Your task to perform on an android device: empty trash in the gmail app Image 0: 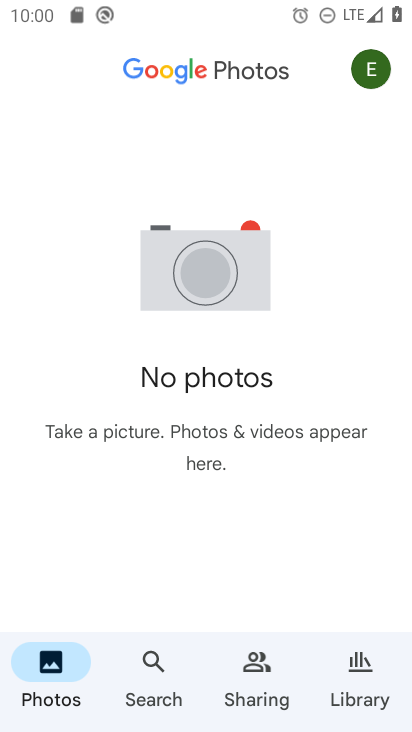
Step 0: press home button
Your task to perform on an android device: empty trash in the gmail app Image 1: 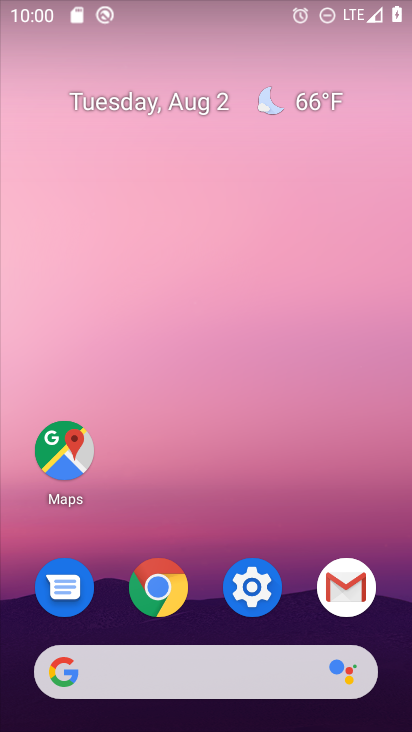
Step 1: click (342, 597)
Your task to perform on an android device: empty trash in the gmail app Image 2: 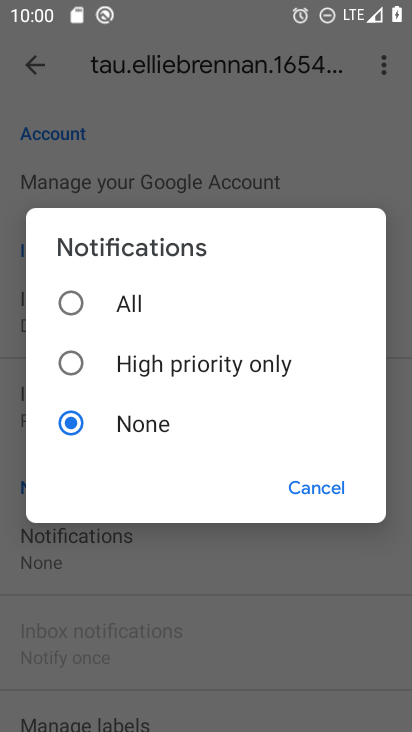
Step 2: click (301, 490)
Your task to perform on an android device: empty trash in the gmail app Image 3: 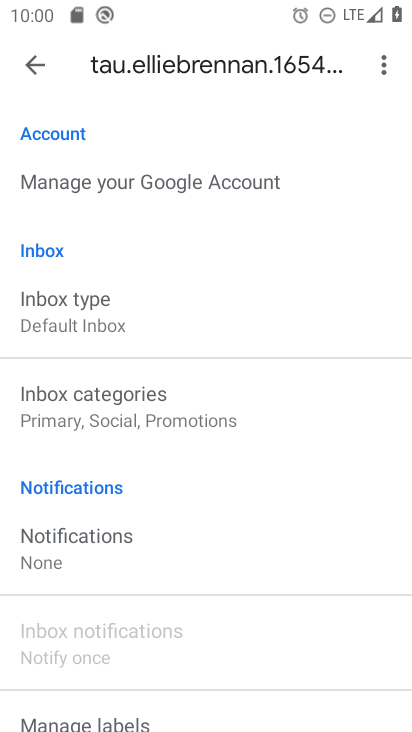
Step 3: click (45, 64)
Your task to perform on an android device: empty trash in the gmail app Image 4: 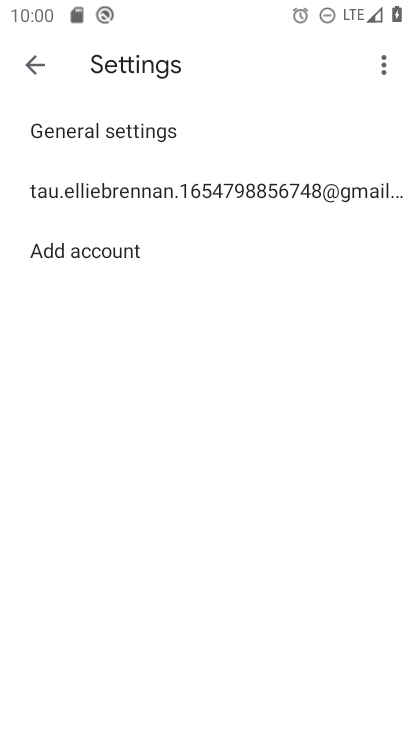
Step 4: click (45, 64)
Your task to perform on an android device: empty trash in the gmail app Image 5: 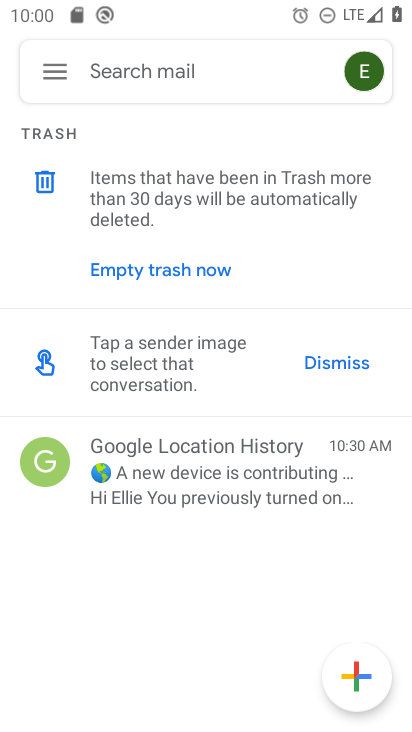
Step 5: click (45, 64)
Your task to perform on an android device: empty trash in the gmail app Image 6: 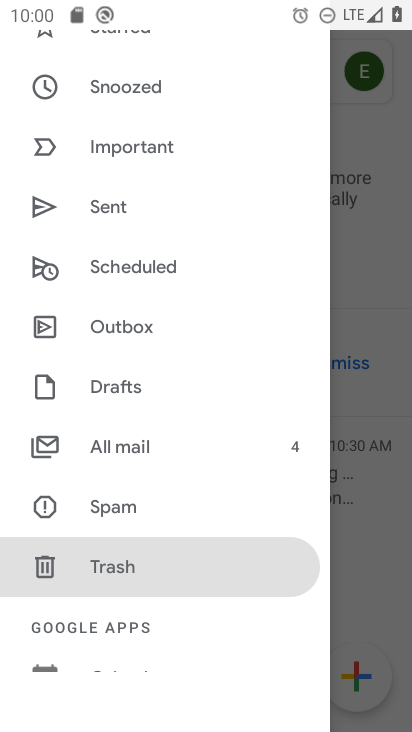
Step 6: click (151, 567)
Your task to perform on an android device: empty trash in the gmail app Image 7: 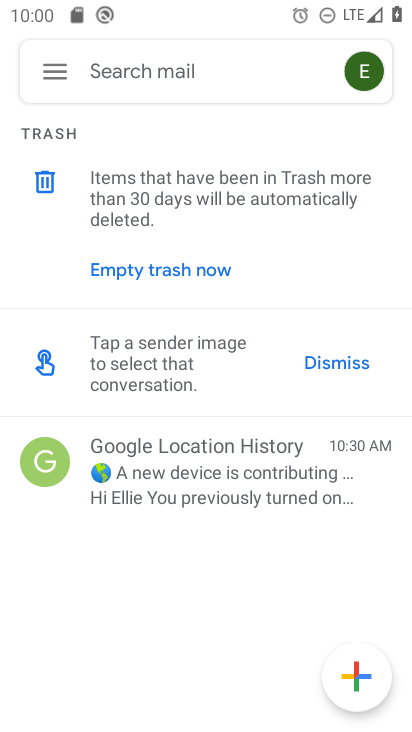
Step 7: click (151, 267)
Your task to perform on an android device: empty trash in the gmail app Image 8: 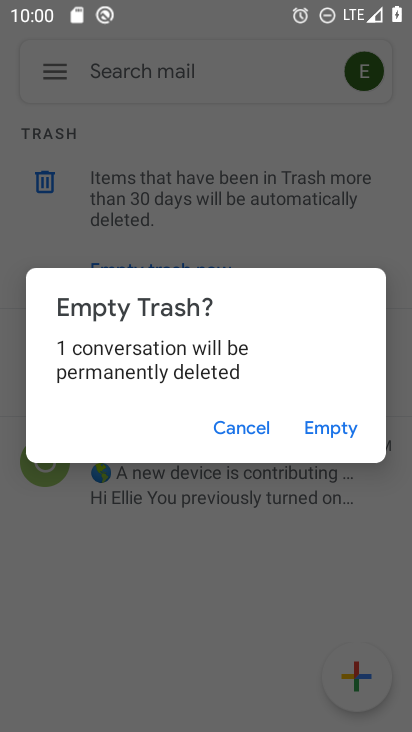
Step 8: click (328, 428)
Your task to perform on an android device: empty trash in the gmail app Image 9: 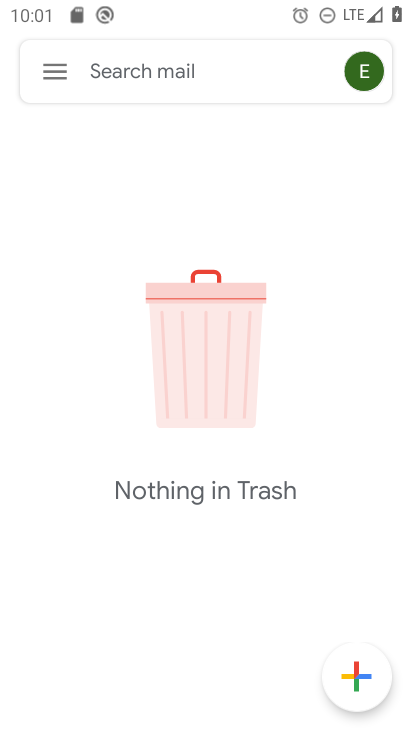
Step 9: task complete